Your task to perform on an android device: What is the news today? Image 0: 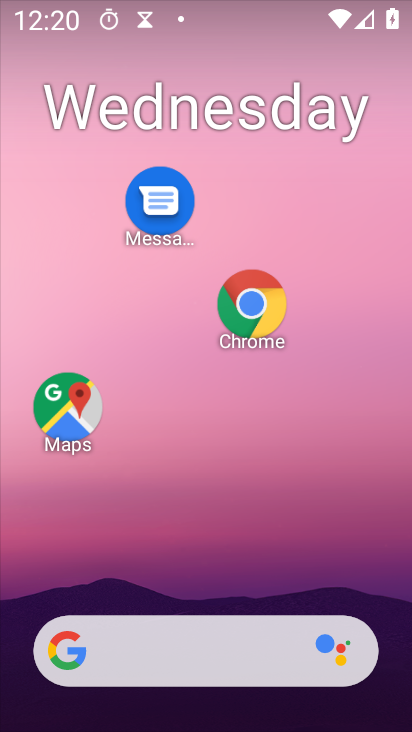
Step 0: drag from (292, 535) to (339, 158)
Your task to perform on an android device: What is the news today? Image 1: 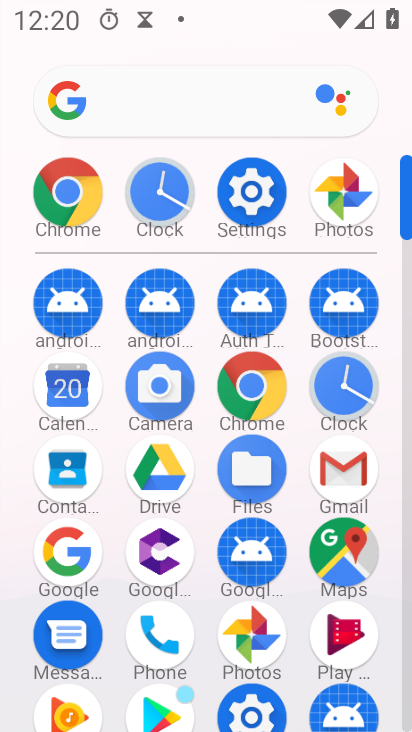
Step 1: click (65, 199)
Your task to perform on an android device: What is the news today? Image 2: 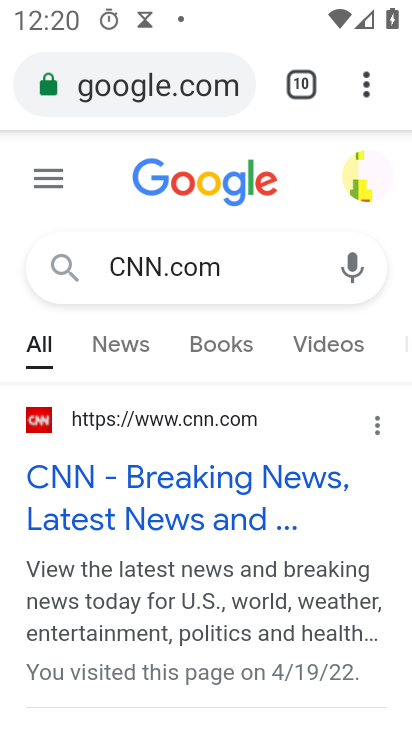
Step 2: click (356, 75)
Your task to perform on an android device: What is the news today? Image 3: 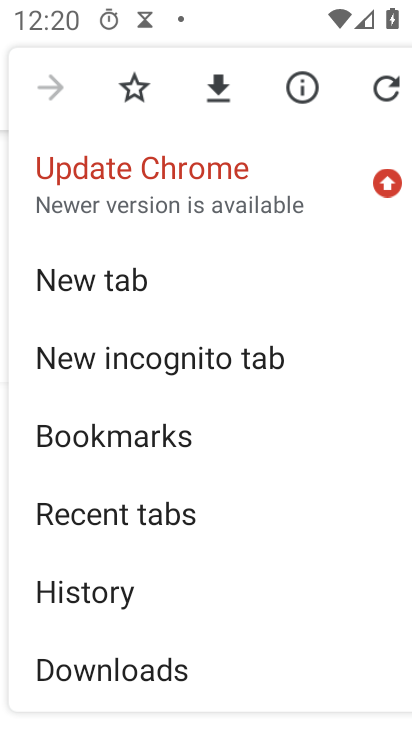
Step 3: click (127, 271)
Your task to perform on an android device: What is the news today? Image 4: 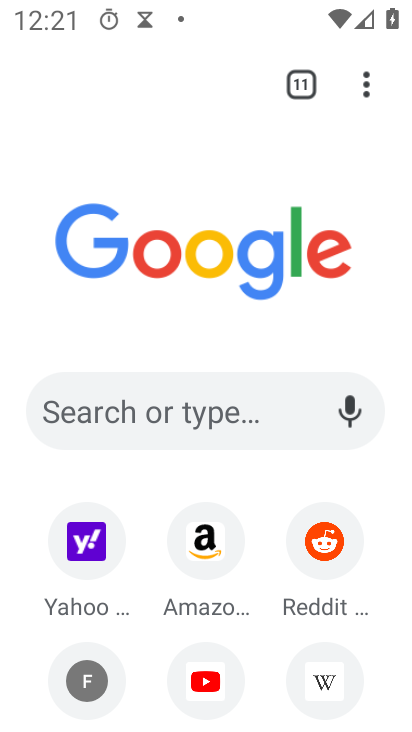
Step 4: click (189, 409)
Your task to perform on an android device: What is the news today? Image 5: 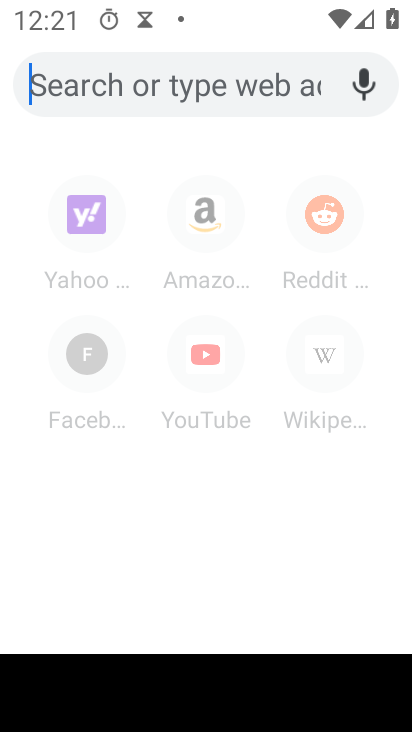
Step 5: type " news today?"
Your task to perform on an android device: What is the news today? Image 6: 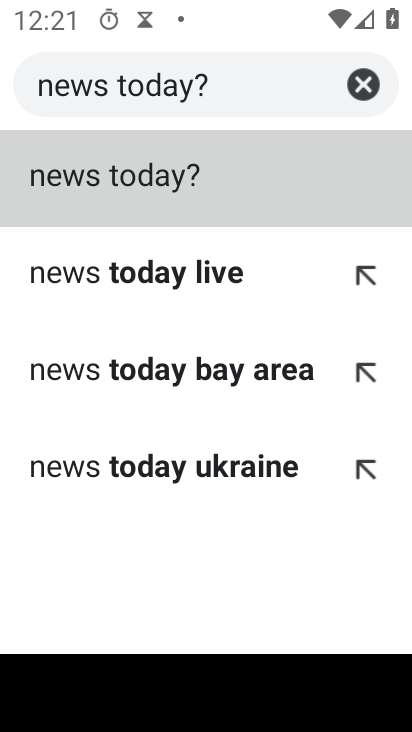
Step 6: click (173, 180)
Your task to perform on an android device: What is the news today? Image 7: 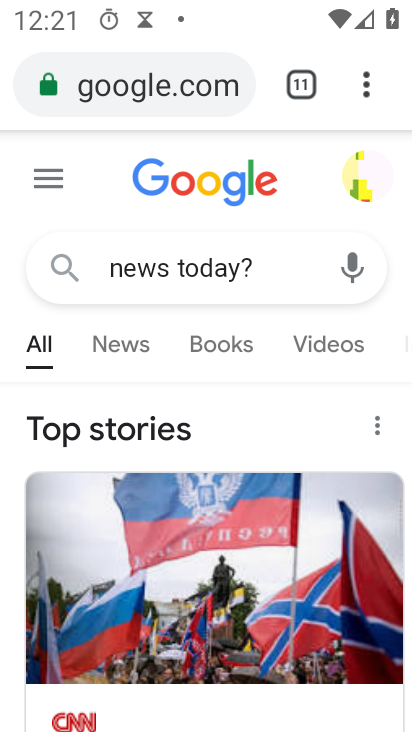
Step 7: task complete